Your task to perform on an android device: Open display settings Image 0: 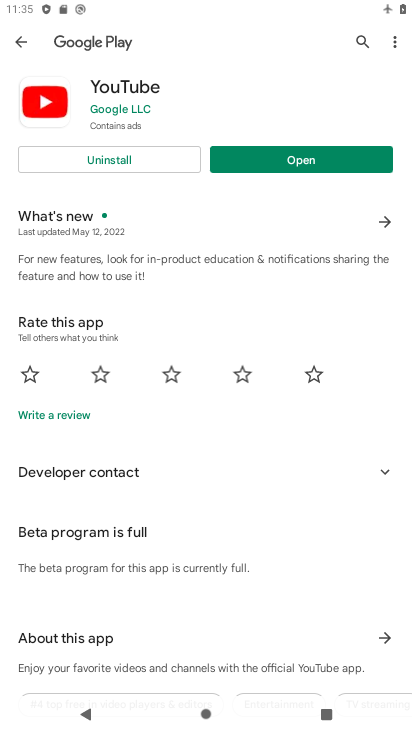
Step 0: press home button
Your task to perform on an android device: Open display settings Image 1: 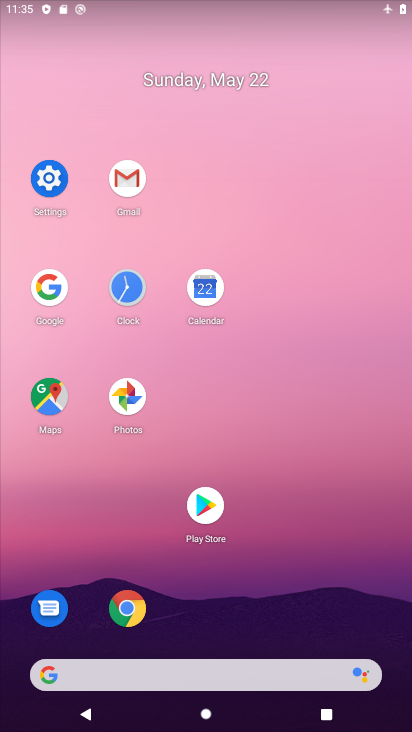
Step 1: click (46, 172)
Your task to perform on an android device: Open display settings Image 2: 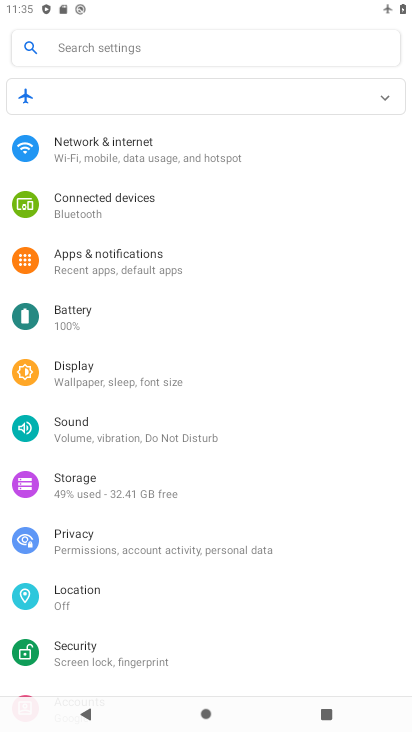
Step 2: click (173, 397)
Your task to perform on an android device: Open display settings Image 3: 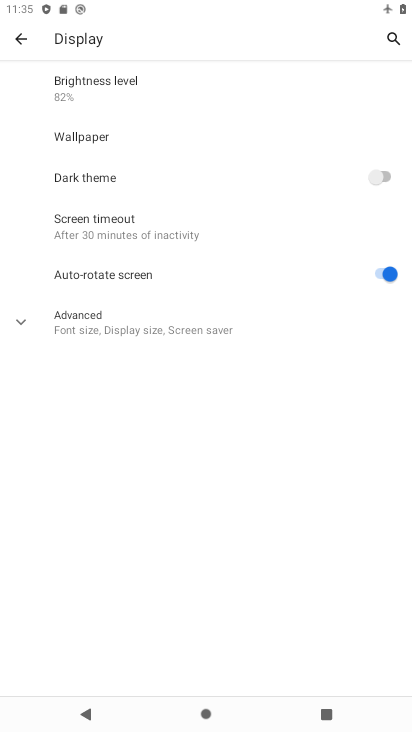
Step 3: task complete